Your task to perform on an android device: delete a single message in the gmail app Image 0: 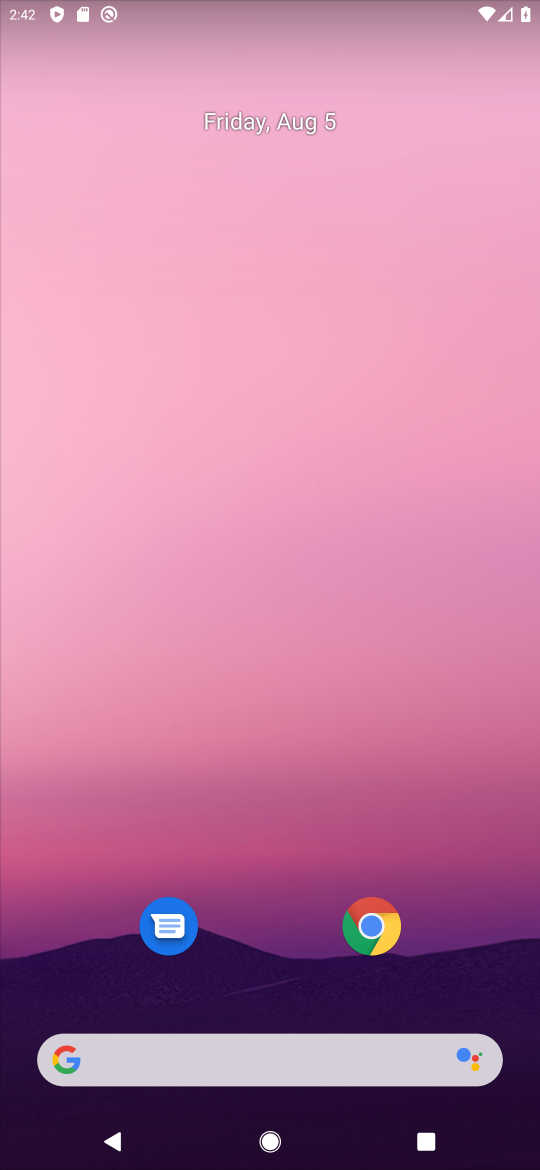
Step 0: drag from (512, 1082) to (432, 7)
Your task to perform on an android device: delete a single message in the gmail app Image 1: 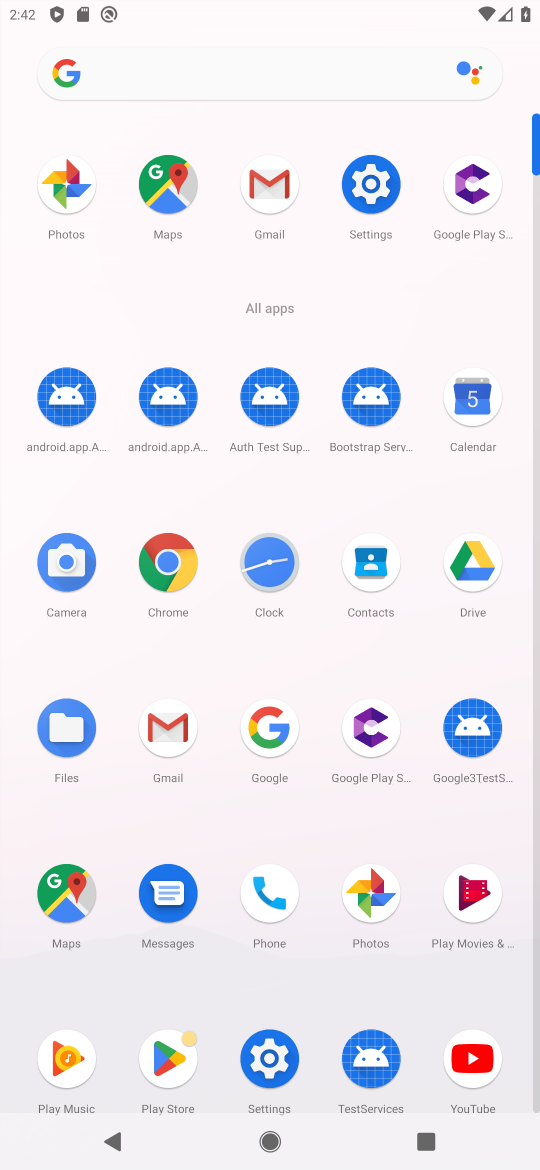
Step 1: click (182, 730)
Your task to perform on an android device: delete a single message in the gmail app Image 2: 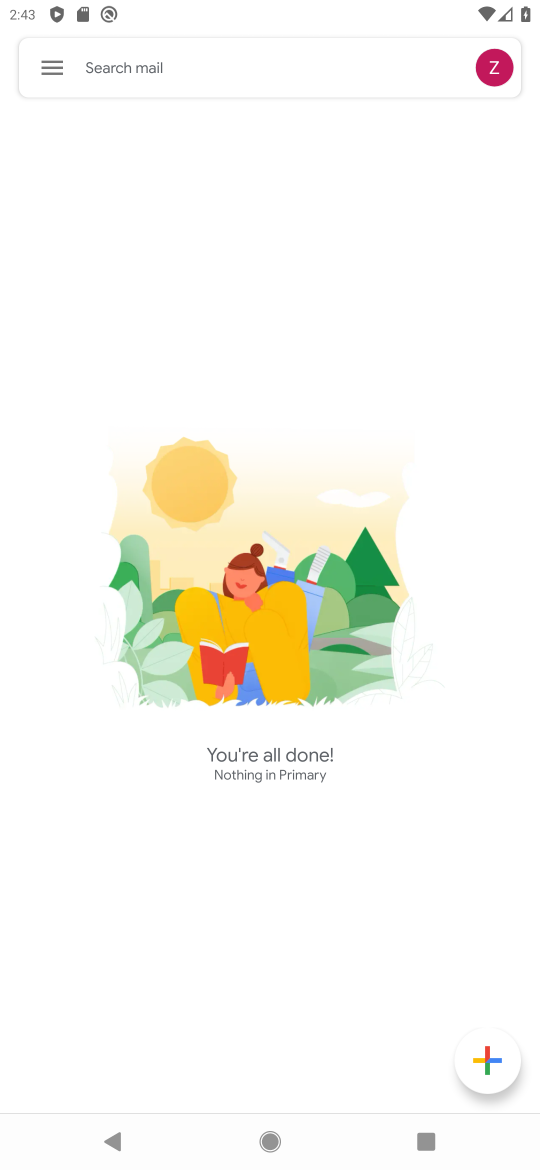
Step 2: task complete